Your task to perform on an android device: change keyboard looks Image 0: 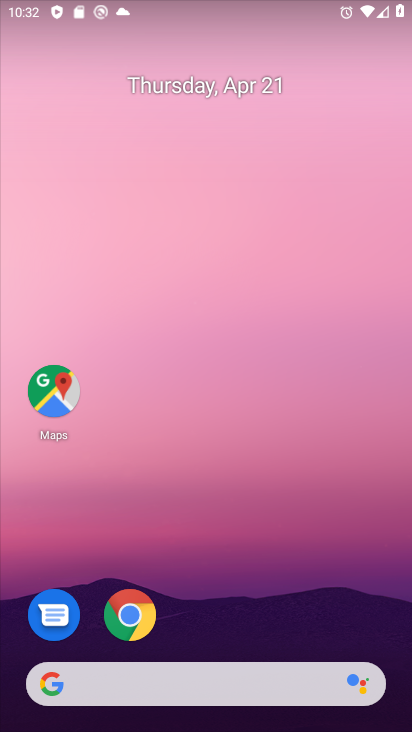
Step 0: click (231, 88)
Your task to perform on an android device: change keyboard looks Image 1: 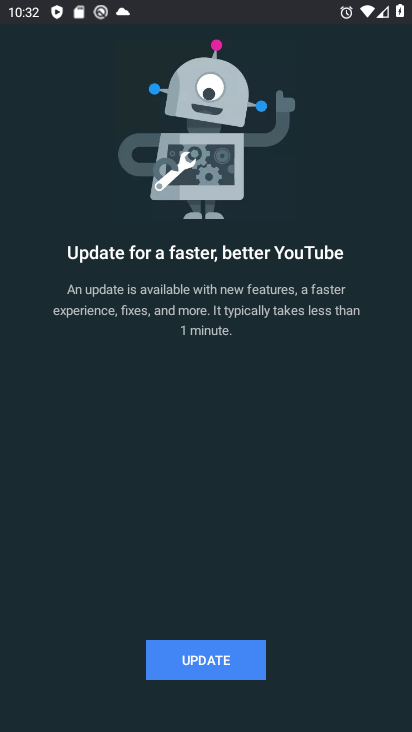
Step 1: press home button
Your task to perform on an android device: change keyboard looks Image 2: 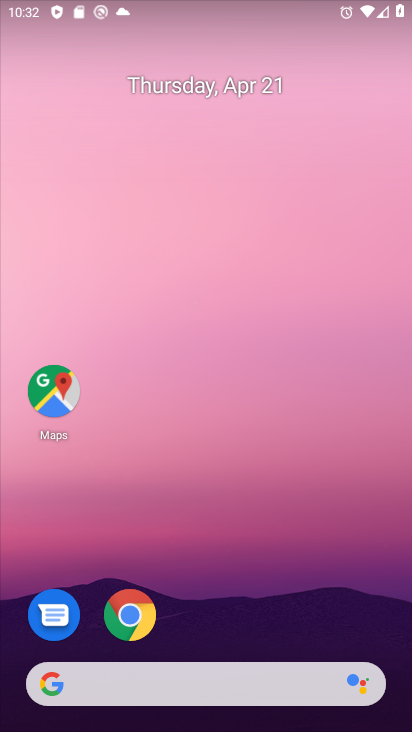
Step 2: drag from (205, 626) to (200, 102)
Your task to perform on an android device: change keyboard looks Image 3: 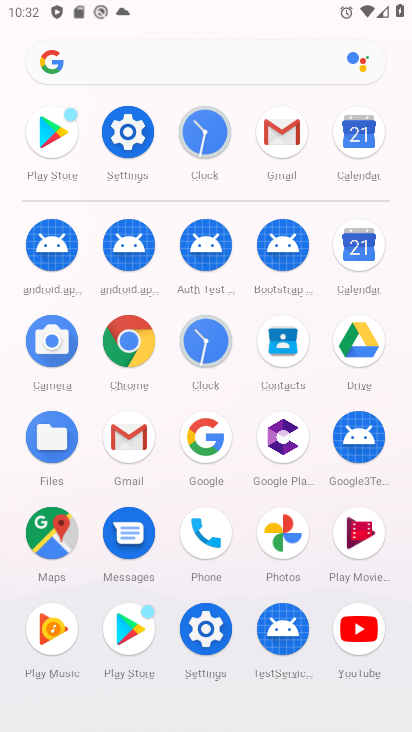
Step 3: click (127, 133)
Your task to perform on an android device: change keyboard looks Image 4: 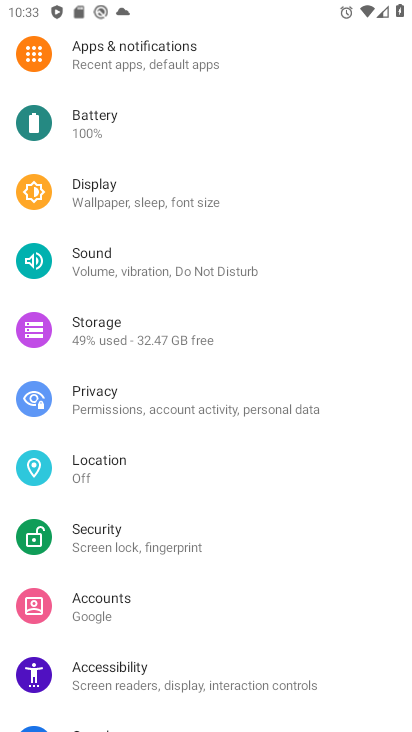
Step 4: drag from (157, 641) to (211, 109)
Your task to perform on an android device: change keyboard looks Image 5: 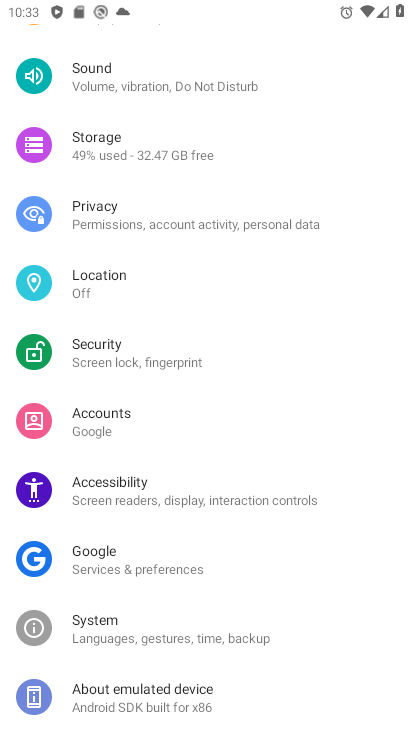
Step 5: click (127, 620)
Your task to perform on an android device: change keyboard looks Image 6: 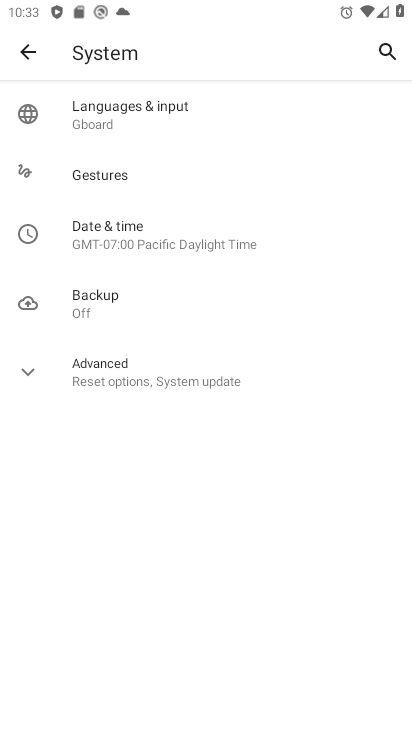
Step 6: click (29, 368)
Your task to perform on an android device: change keyboard looks Image 7: 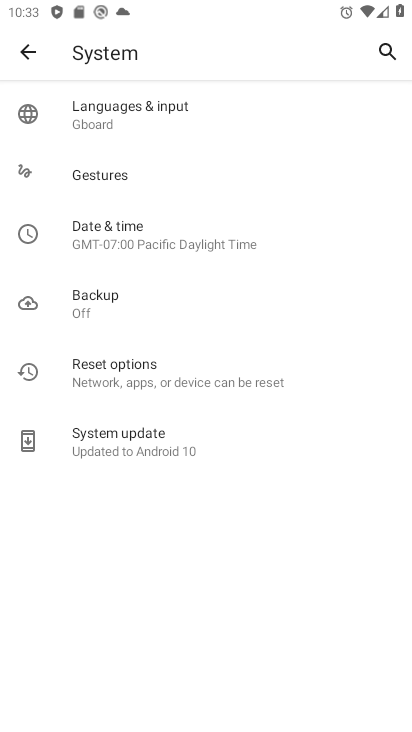
Step 7: click (89, 114)
Your task to perform on an android device: change keyboard looks Image 8: 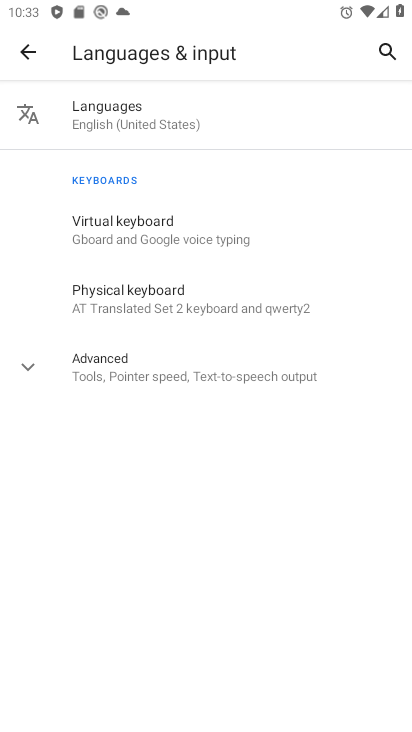
Step 8: click (128, 226)
Your task to perform on an android device: change keyboard looks Image 9: 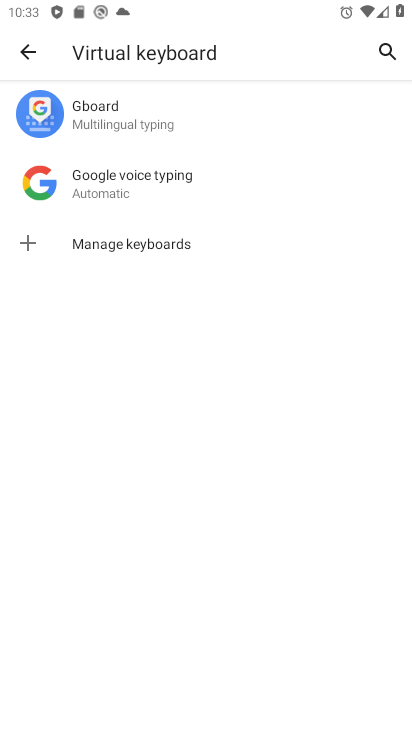
Step 9: click (149, 105)
Your task to perform on an android device: change keyboard looks Image 10: 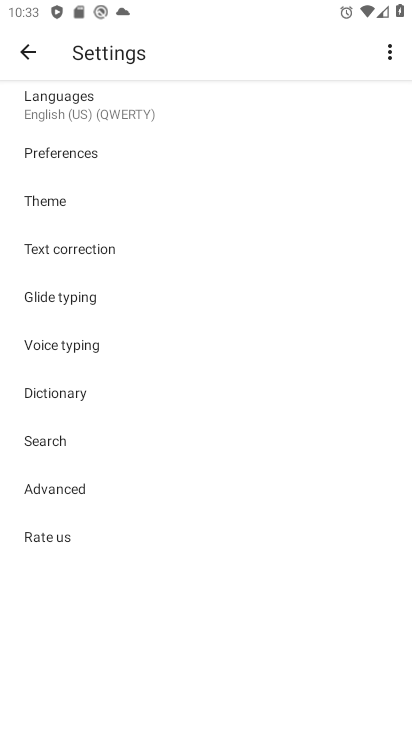
Step 10: click (71, 208)
Your task to perform on an android device: change keyboard looks Image 11: 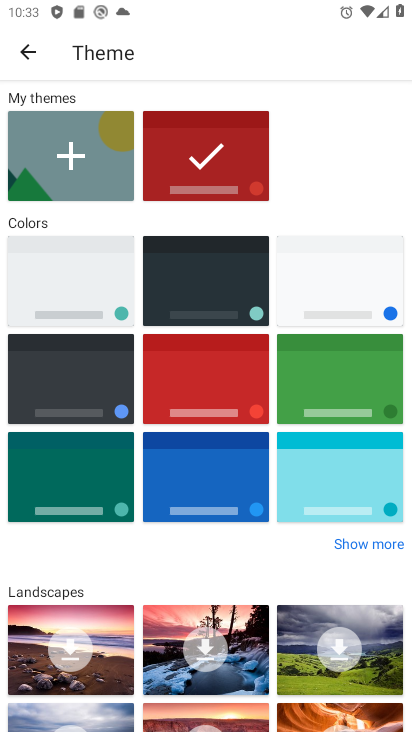
Step 11: click (354, 473)
Your task to perform on an android device: change keyboard looks Image 12: 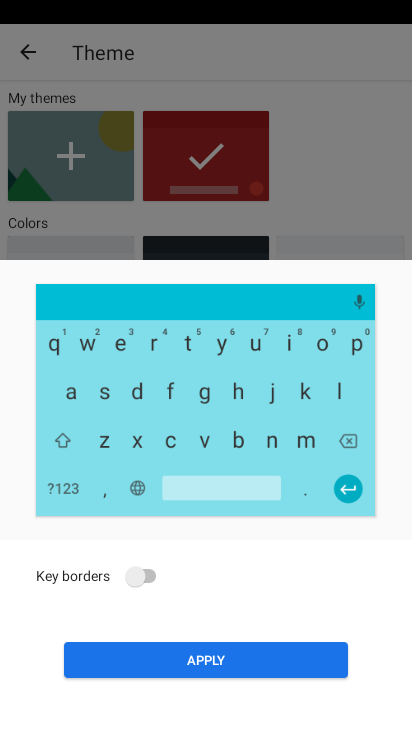
Step 12: click (219, 657)
Your task to perform on an android device: change keyboard looks Image 13: 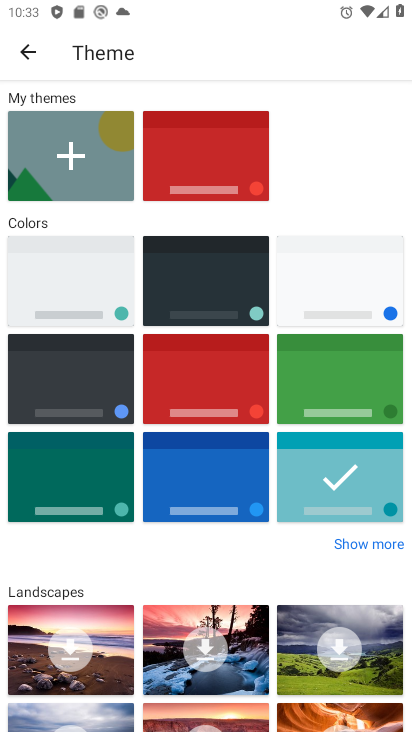
Step 13: task complete